Your task to perform on an android device: toggle translation in the chrome app Image 0: 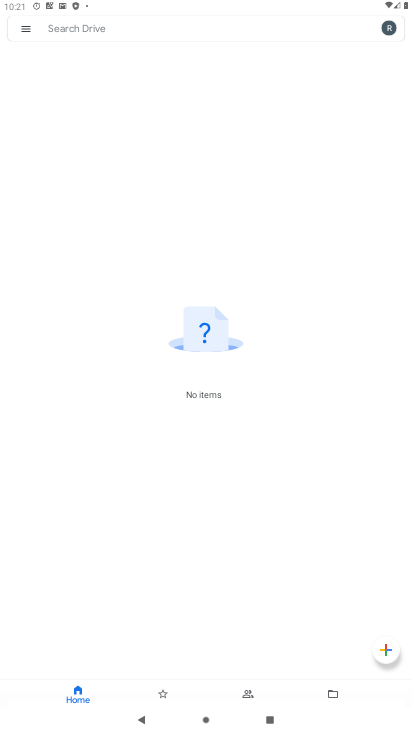
Step 0: drag from (205, 628) to (243, 62)
Your task to perform on an android device: toggle translation in the chrome app Image 1: 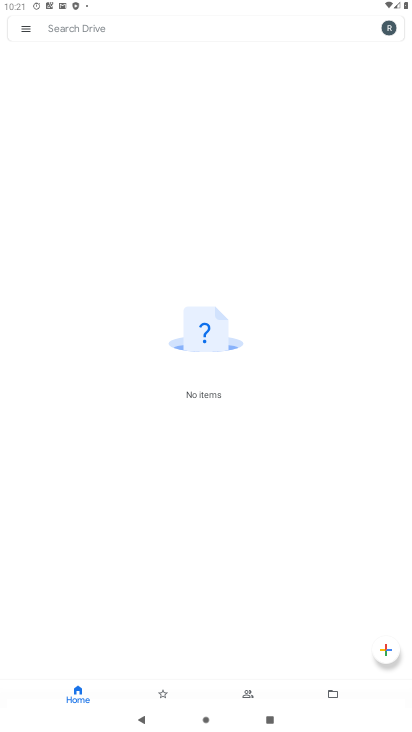
Step 1: drag from (196, 565) to (252, 248)
Your task to perform on an android device: toggle translation in the chrome app Image 2: 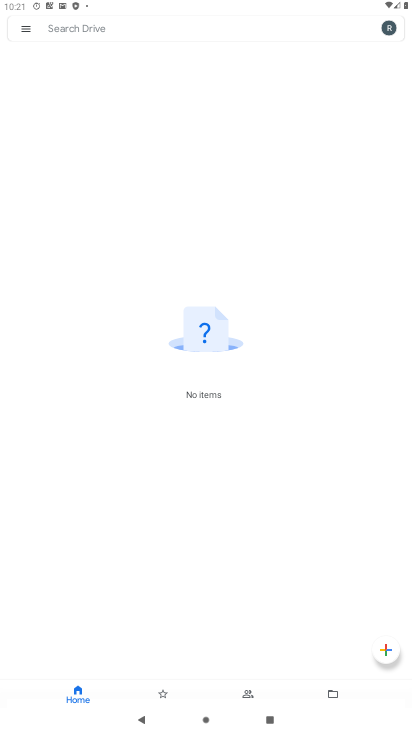
Step 2: press home button
Your task to perform on an android device: toggle translation in the chrome app Image 3: 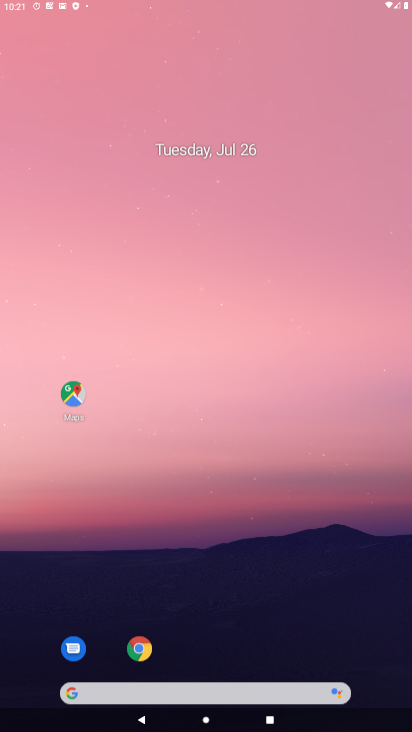
Step 3: drag from (196, 605) to (74, 0)
Your task to perform on an android device: toggle translation in the chrome app Image 4: 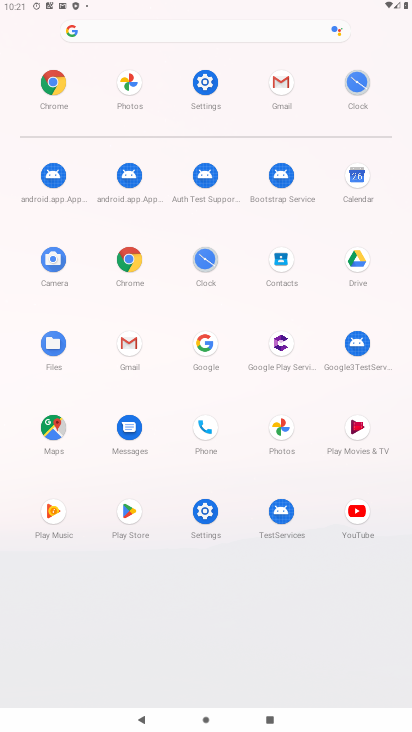
Step 4: click (123, 260)
Your task to perform on an android device: toggle translation in the chrome app Image 5: 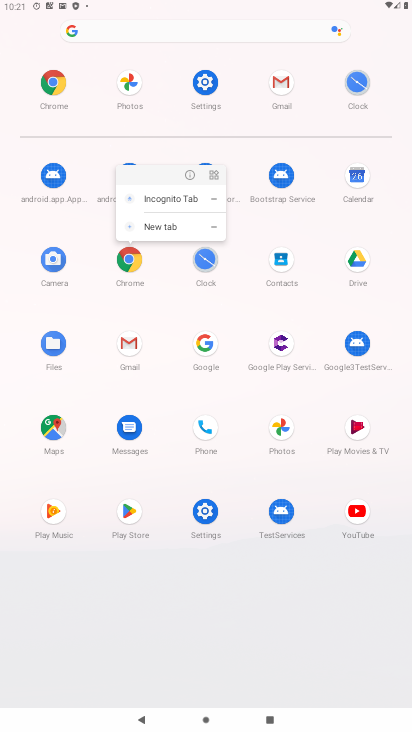
Step 5: click (191, 173)
Your task to perform on an android device: toggle translation in the chrome app Image 6: 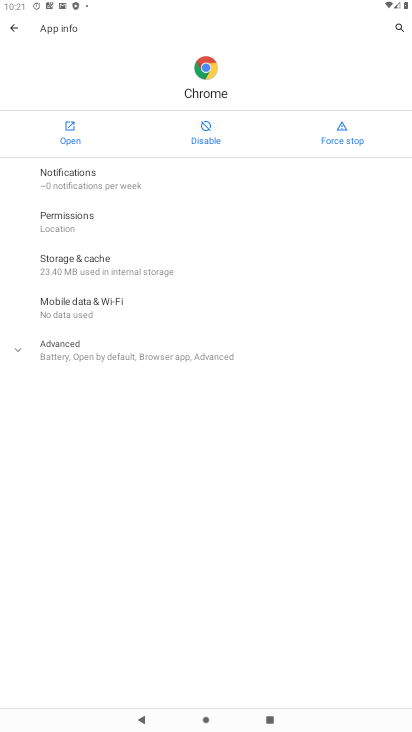
Step 6: click (70, 123)
Your task to perform on an android device: toggle translation in the chrome app Image 7: 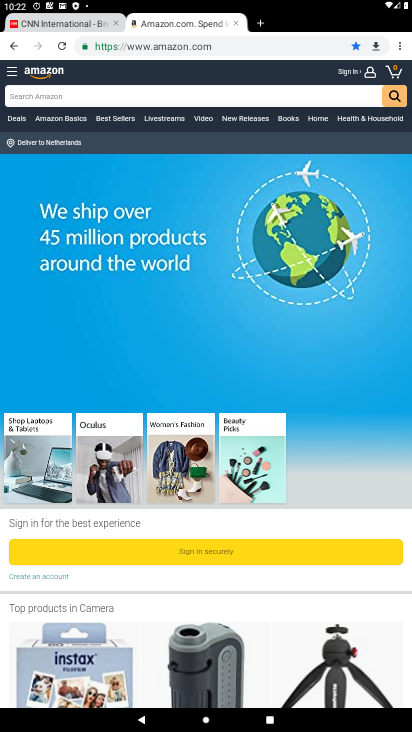
Step 7: drag from (397, 50) to (337, 302)
Your task to perform on an android device: toggle translation in the chrome app Image 8: 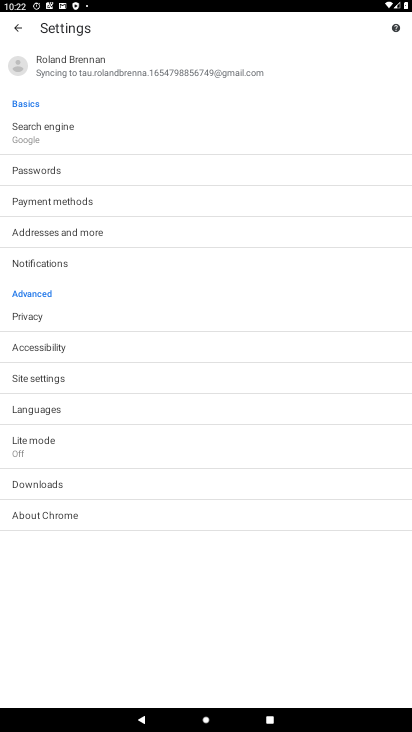
Step 8: click (77, 407)
Your task to perform on an android device: toggle translation in the chrome app Image 9: 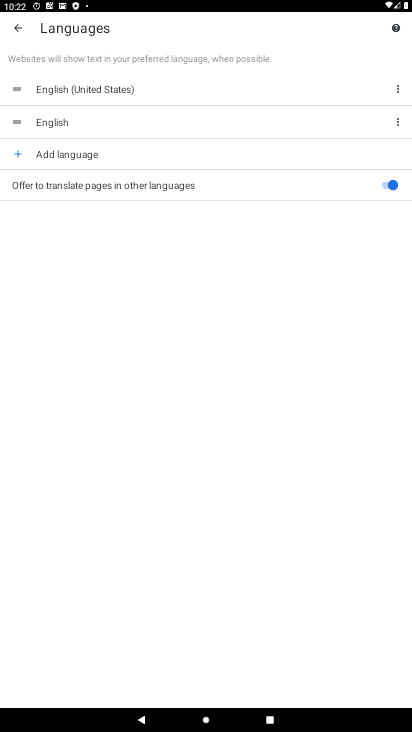
Step 9: click (392, 184)
Your task to perform on an android device: toggle translation in the chrome app Image 10: 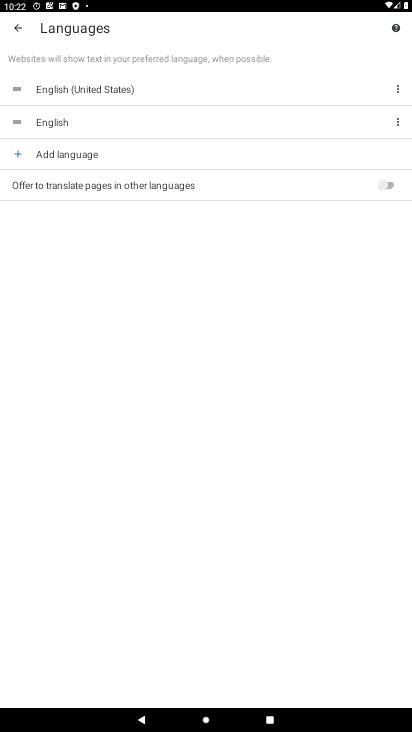
Step 10: task complete